Your task to perform on an android device: change your default location settings in chrome Image 0: 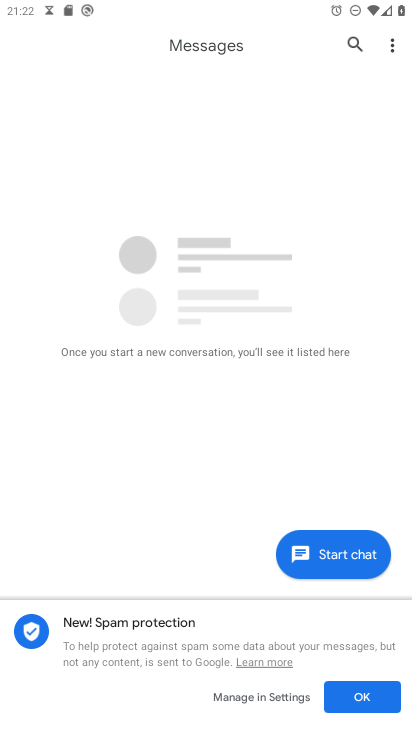
Step 0: press home button
Your task to perform on an android device: change your default location settings in chrome Image 1: 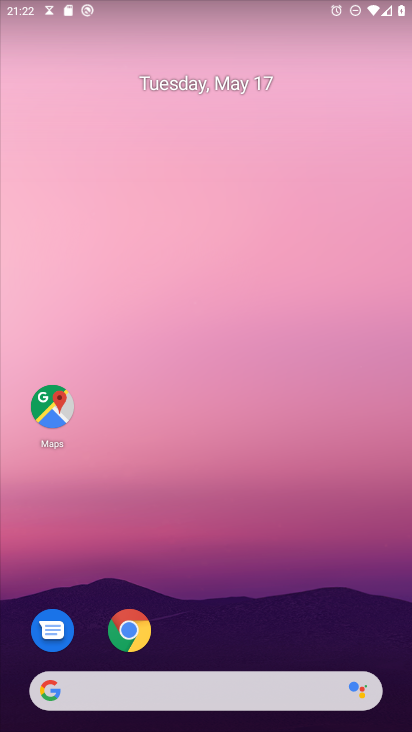
Step 1: click (119, 626)
Your task to perform on an android device: change your default location settings in chrome Image 2: 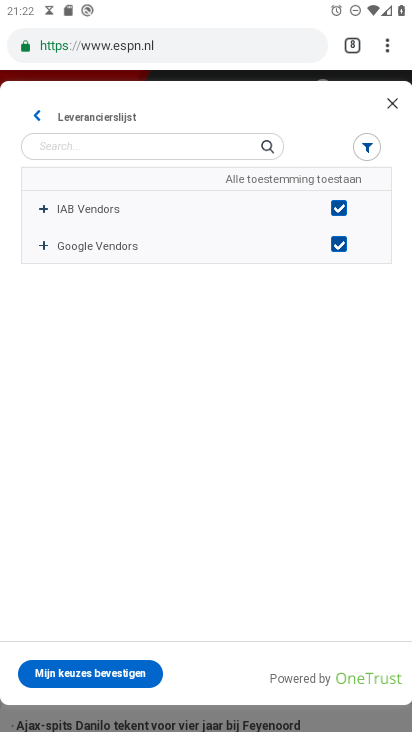
Step 2: click (386, 42)
Your task to perform on an android device: change your default location settings in chrome Image 3: 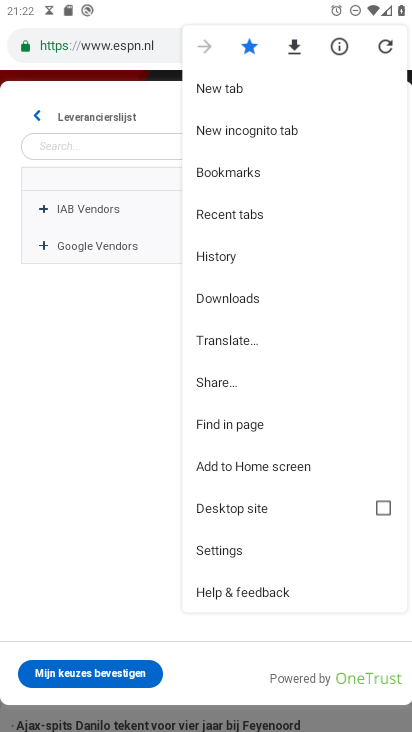
Step 3: click (228, 547)
Your task to perform on an android device: change your default location settings in chrome Image 4: 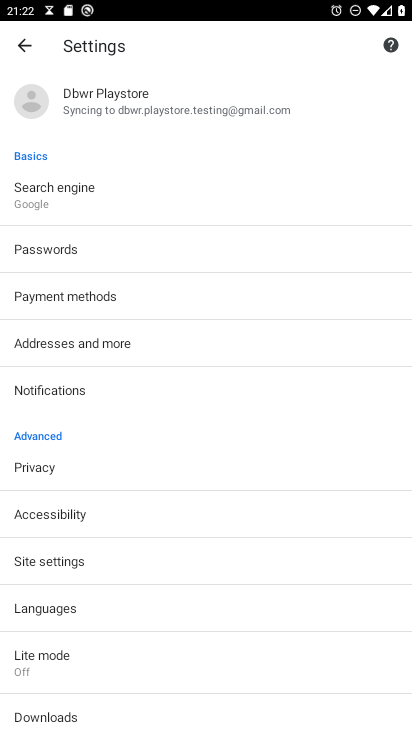
Step 4: click (51, 563)
Your task to perform on an android device: change your default location settings in chrome Image 5: 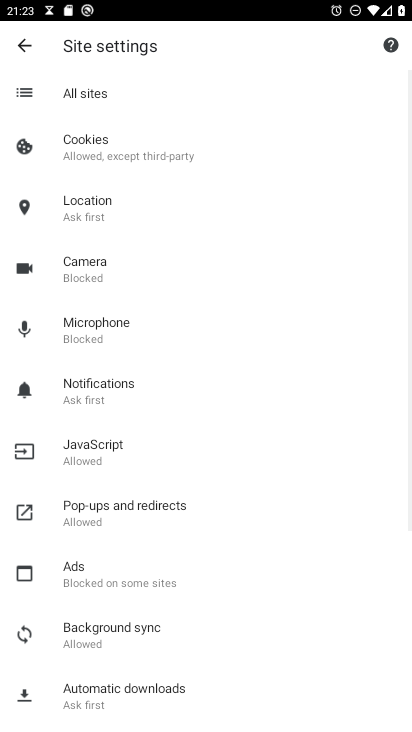
Step 5: click (80, 207)
Your task to perform on an android device: change your default location settings in chrome Image 6: 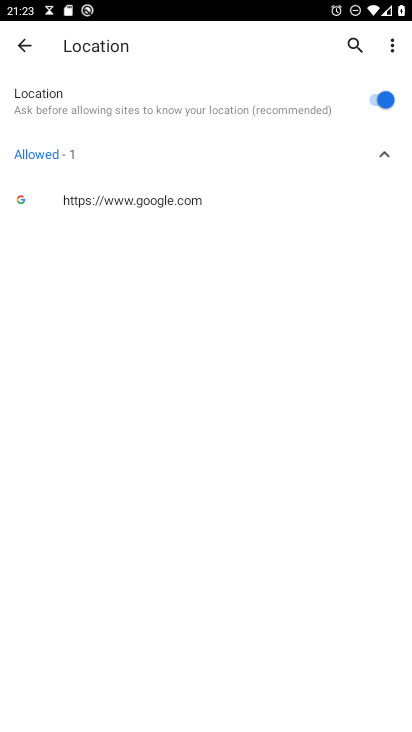
Step 6: click (389, 102)
Your task to perform on an android device: change your default location settings in chrome Image 7: 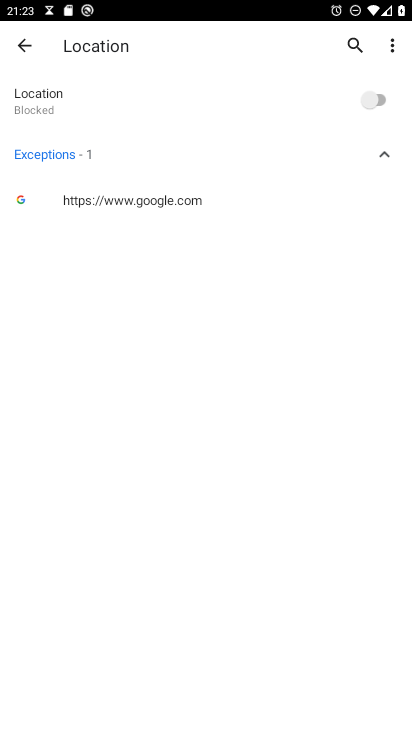
Step 7: click (394, 45)
Your task to perform on an android device: change your default location settings in chrome Image 8: 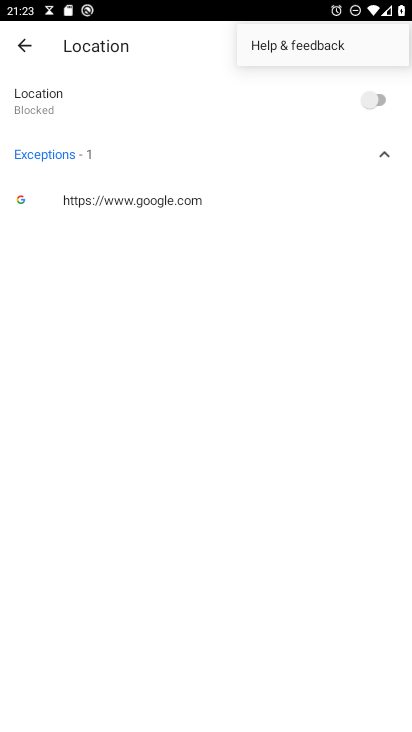
Step 8: click (317, 179)
Your task to perform on an android device: change your default location settings in chrome Image 9: 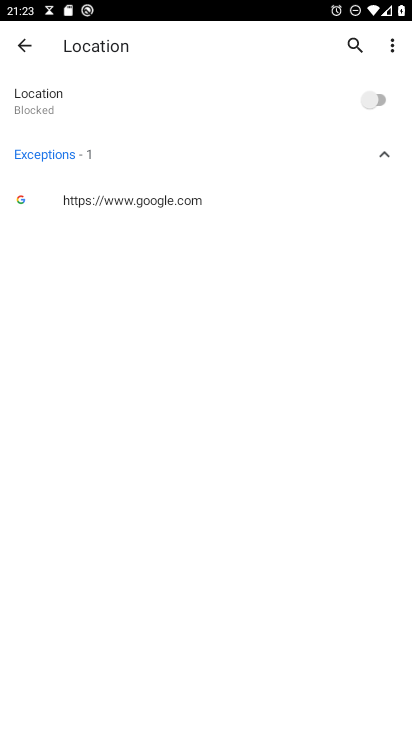
Step 9: click (388, 154)
Your task to perform on an android device: change your default location settings in chrome Image 10: 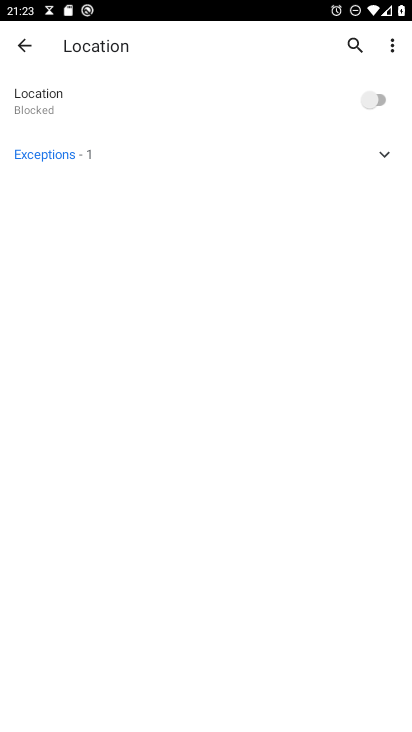
Step 10: click (388, 154)
Your task to perform on an android device: change your default location settings in chrome Image 11: 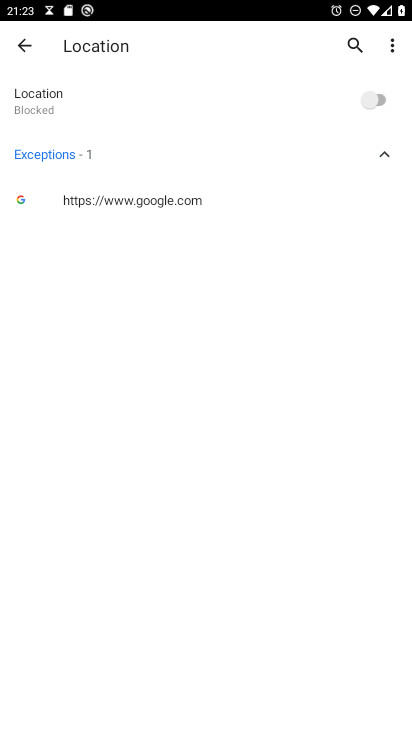
Step 11: task complete